Your task to perform on an android device: Add apple airpods to the cart on bestbuy.com Image 0: 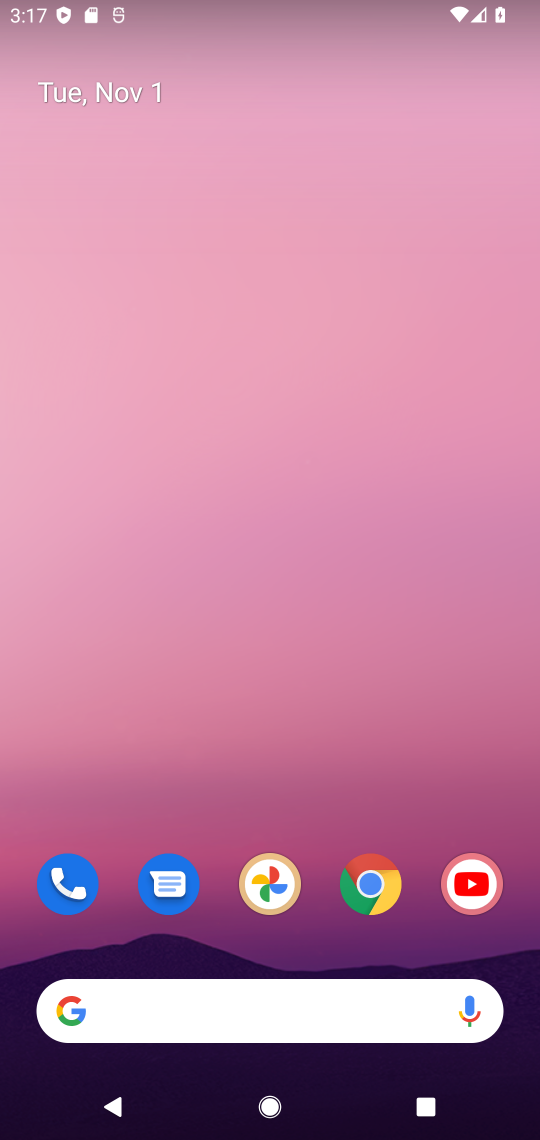
Step 0: click (364, 887)
Your task to perform on an android device: Add apple airpods to the cart on bestbuy.com Image 1: 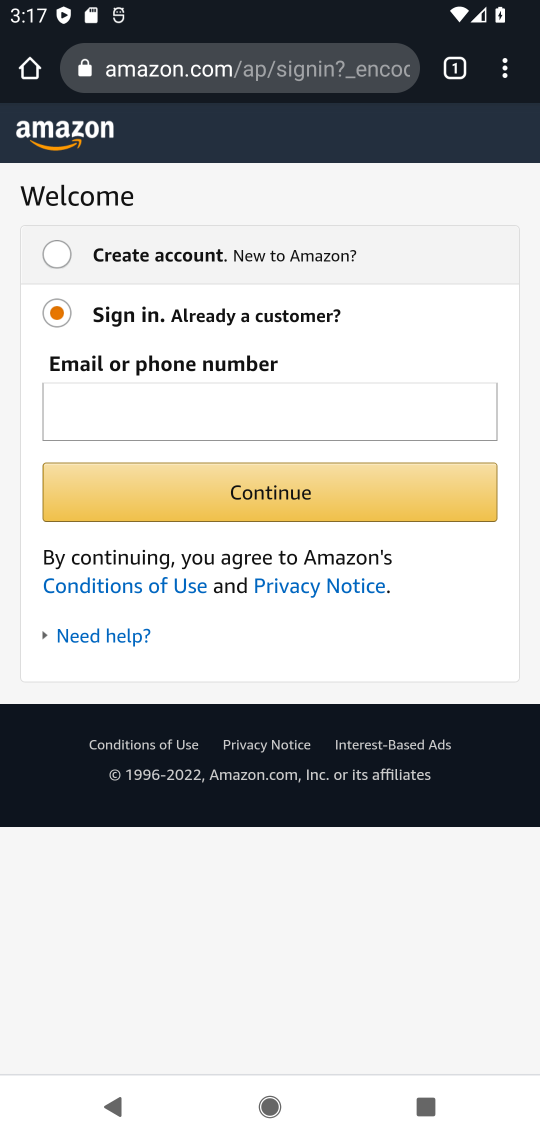
Step 1: click (291, 67)
Your task to perform on an android device: Add apple airpods to the cart on bestbuy.com Image 2: 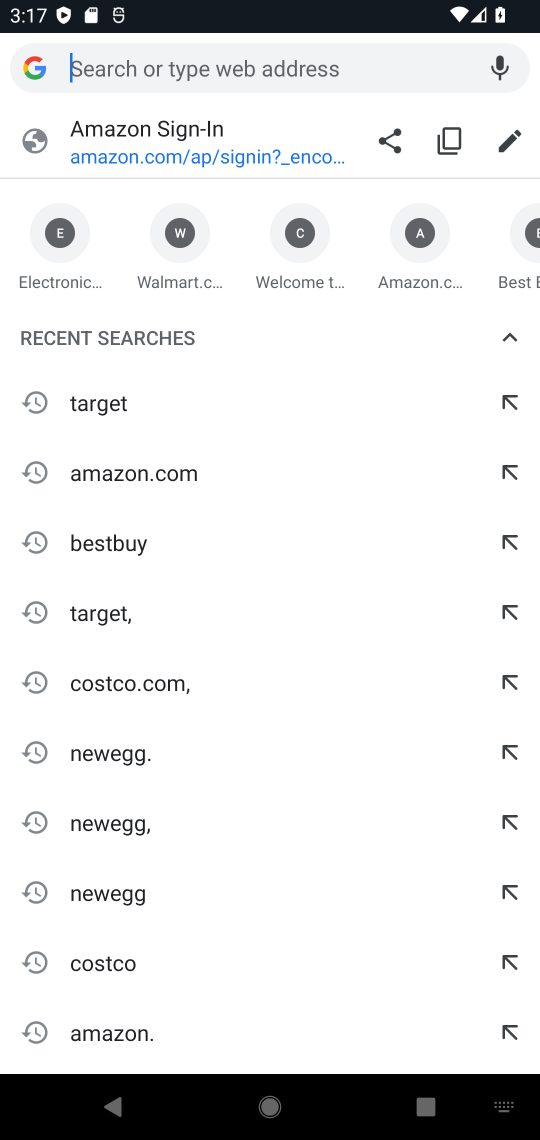
Step 2: type "bestbuy.com"
Your task to perform on an android device: Add apple airpods to the cart on bestbuy.com Image 3: 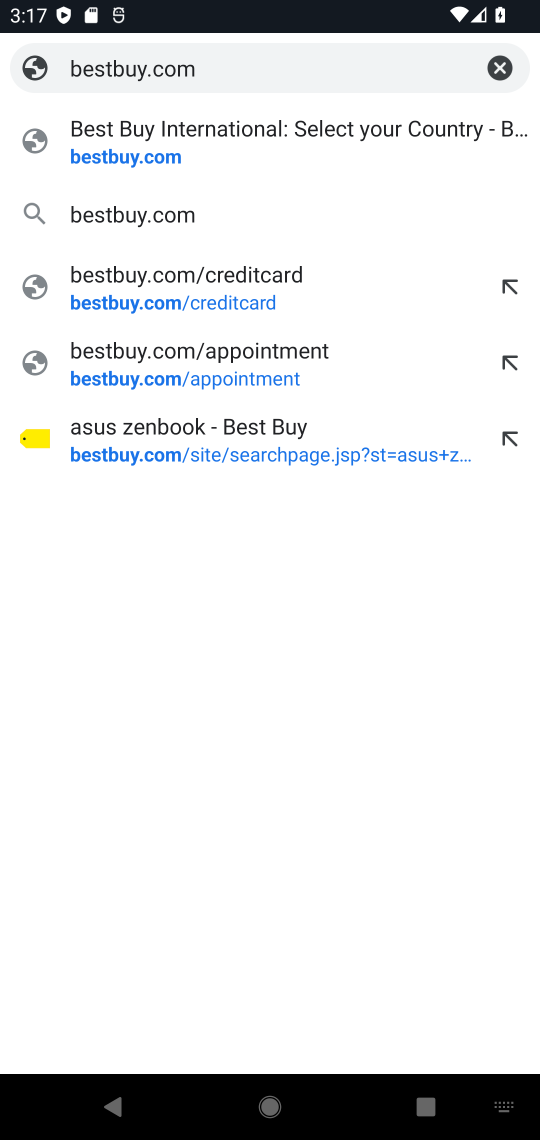
Step 3: click (152, 214)
Your task to perform on an android device: Add apple airpods to the cart on bestbuy.com Image 4: 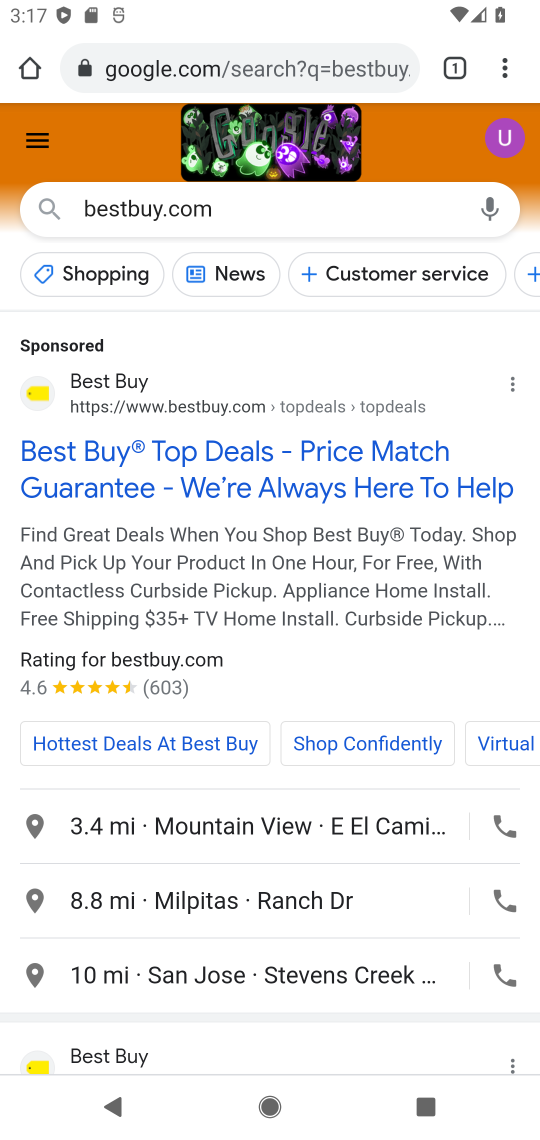
Step 4: drag from (270, 774) to (306, 310)
Your task to perform on an android device: Add apple airpods to the cart on bestbuy.com Image 5: 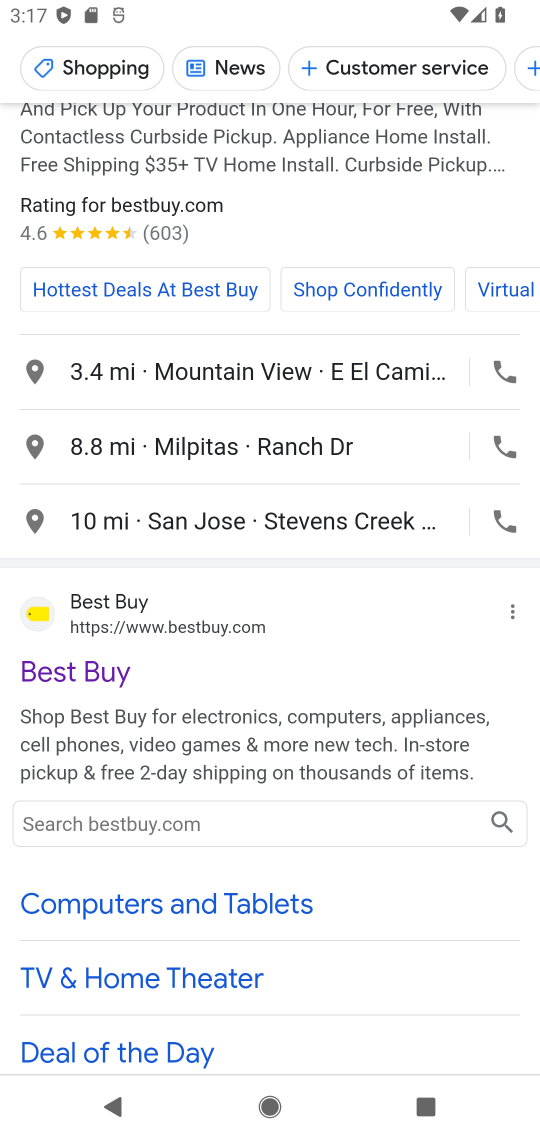
Step 5: click (98, 600)
Your task to perform on an android device: Add apple airpods to the cart on bestbuy.com Image 6: 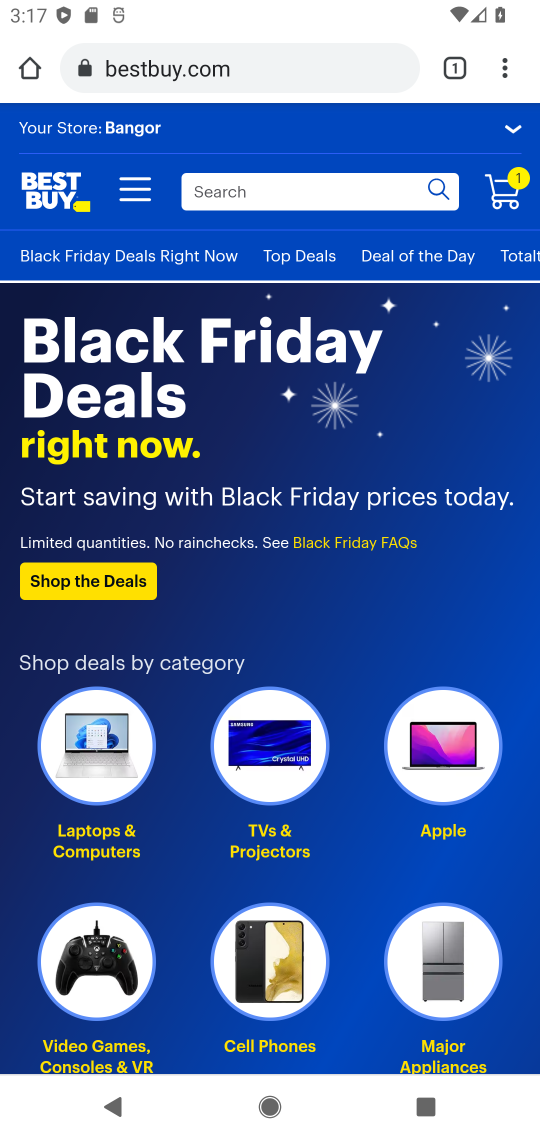
Step 6: click (263, 193)
Your task to perform on an android device: Add apple airpods to the cart on bestbuy.com Image 7: 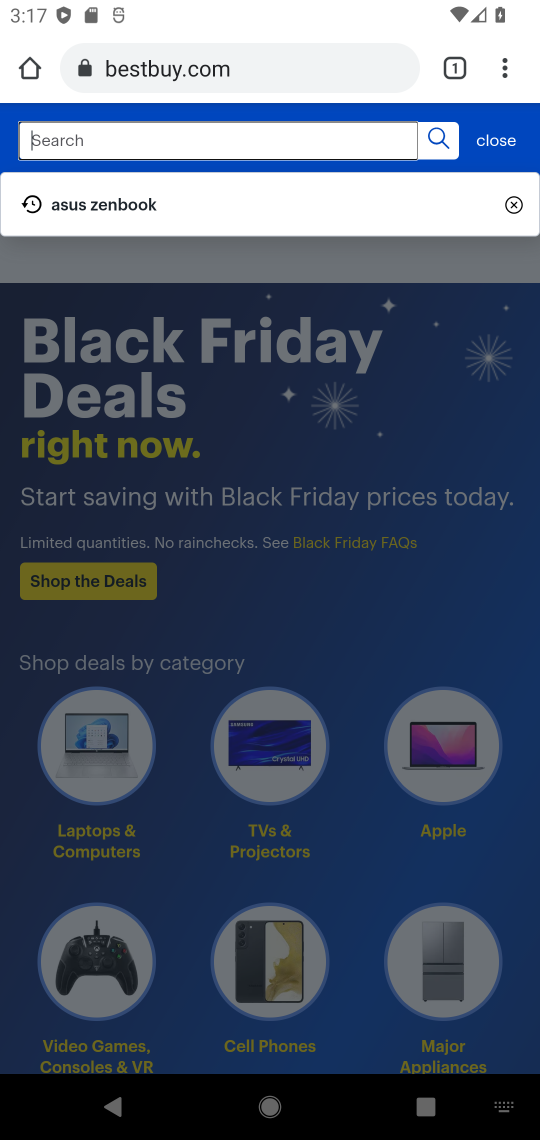
Step 7: type "apple airpods "
Your task to perform on an android device: Add apple airpods to the cart on bestbuy.com Image 8: 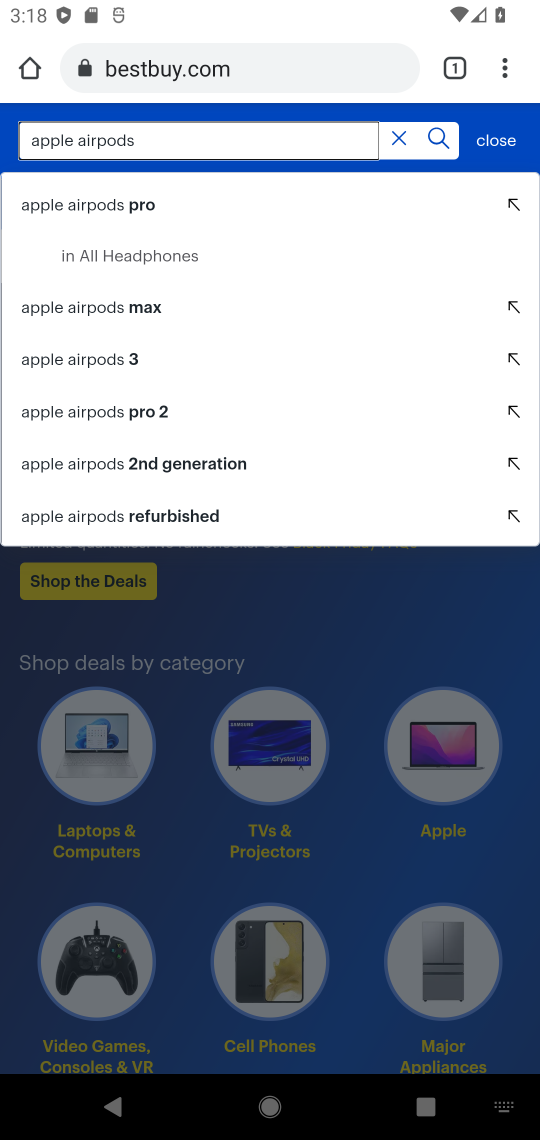
Step 8: click (264, 134)
Your task to perform on an android device: Add apple airpods to the cart on bestbuy.com Image 9: 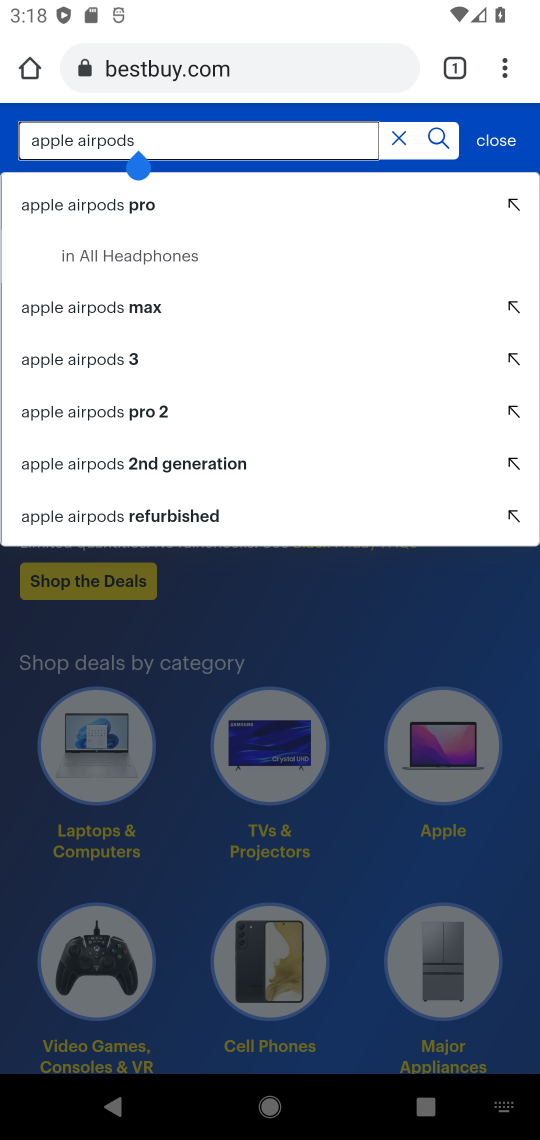
Step 9: click (97, 207)
Your task to perform on an android device: Add apple airpods to the cart on bestbuy.com Image 10: 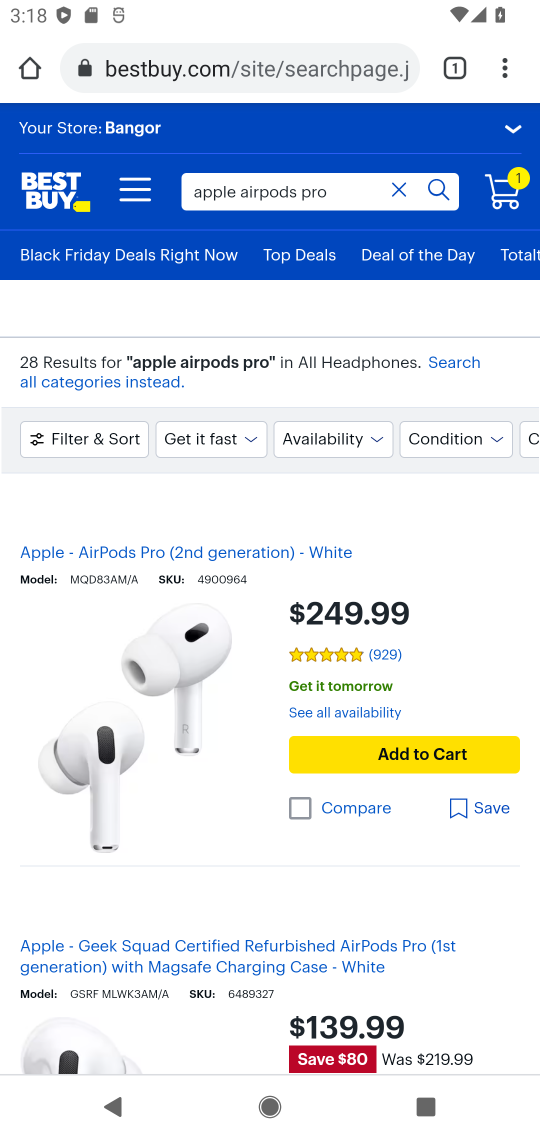
Step 10: click (123, 622)
Your task to perform on an android device: Add apple airpods to the cart on bestbuy.com Image 11: 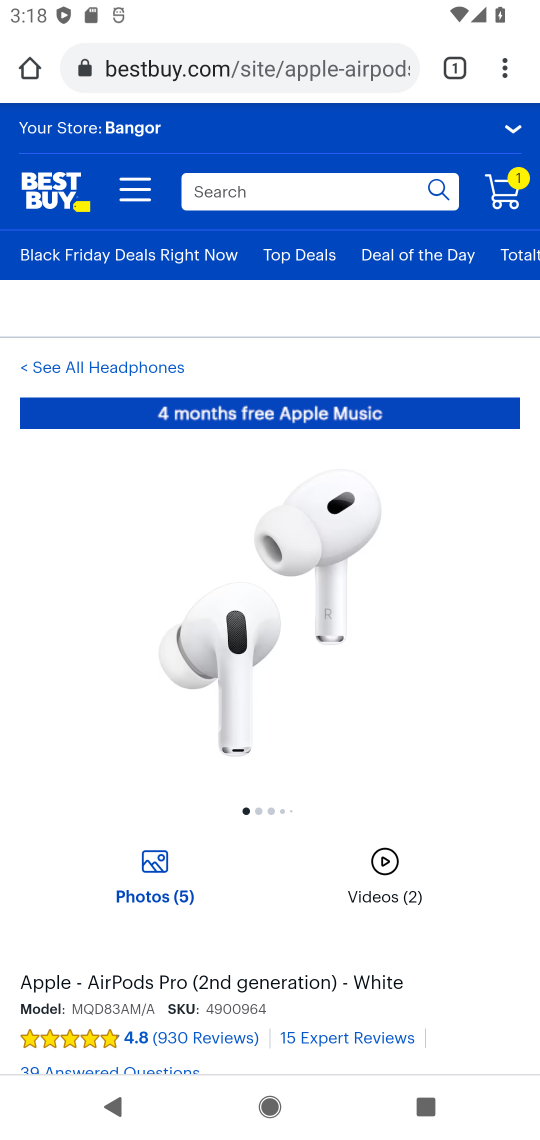
Step 11: drag from (406, 802) to (417, 414)
Your task to perform on an android device: Add apple airpods to the cart on bestbuy.com Image 12: 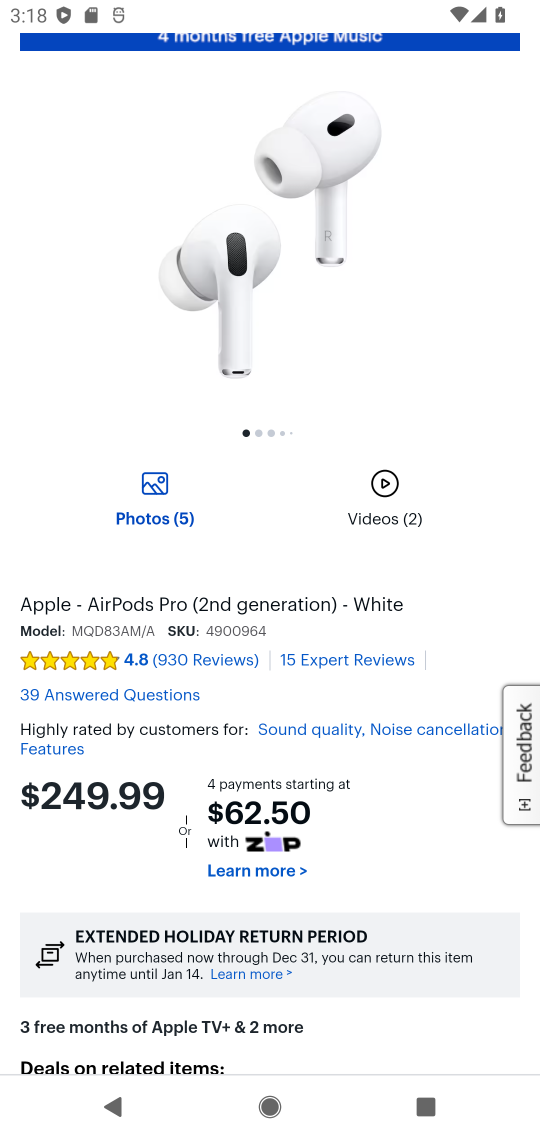
Step 12: drag from (420, 776) to (440, 460)
Your task to perform on an android device: Add apple airpods to the cart on bestbuy.com Image 13: 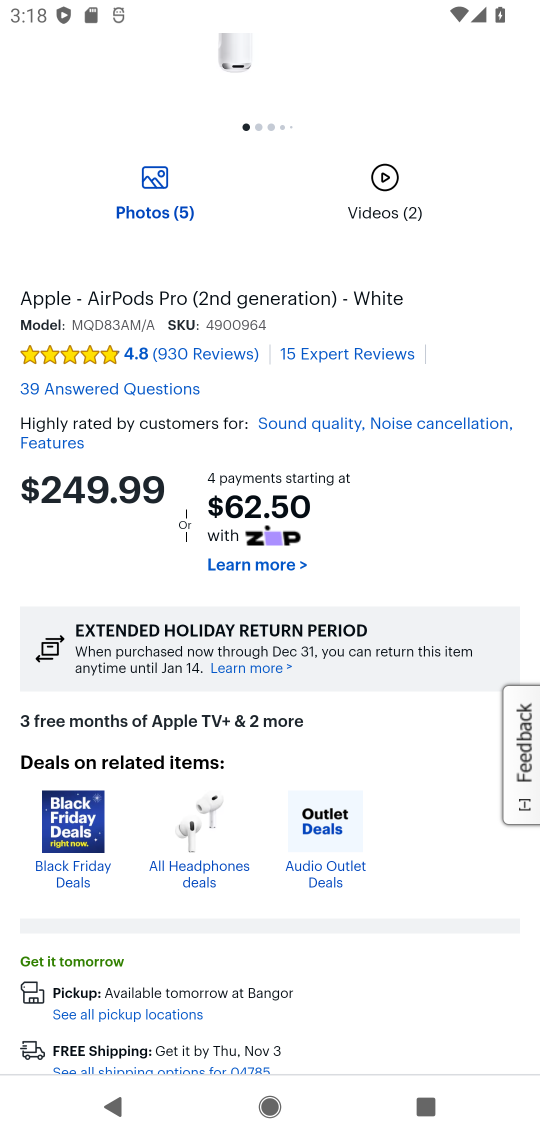
Step 13: drag from (411, 963) to (391, 479)
Your task to perform on an android device: Add apple airpods to the cart on bestbuy.com Image 14: 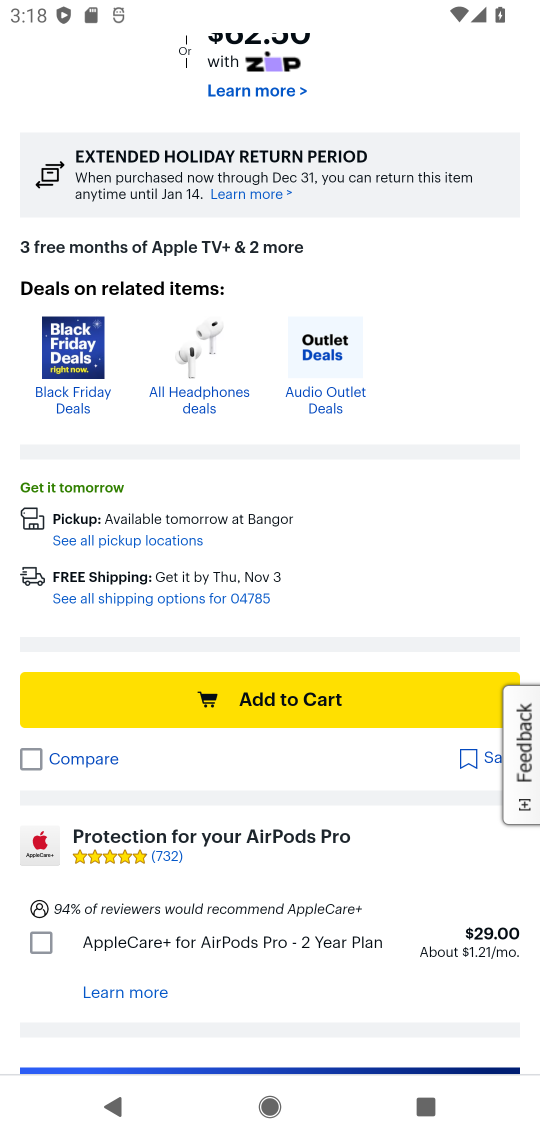
Step 14: click (339, 695)
Your task to perform on an android device: Add apple airpods to the cart on bestbuy.com Image 15: 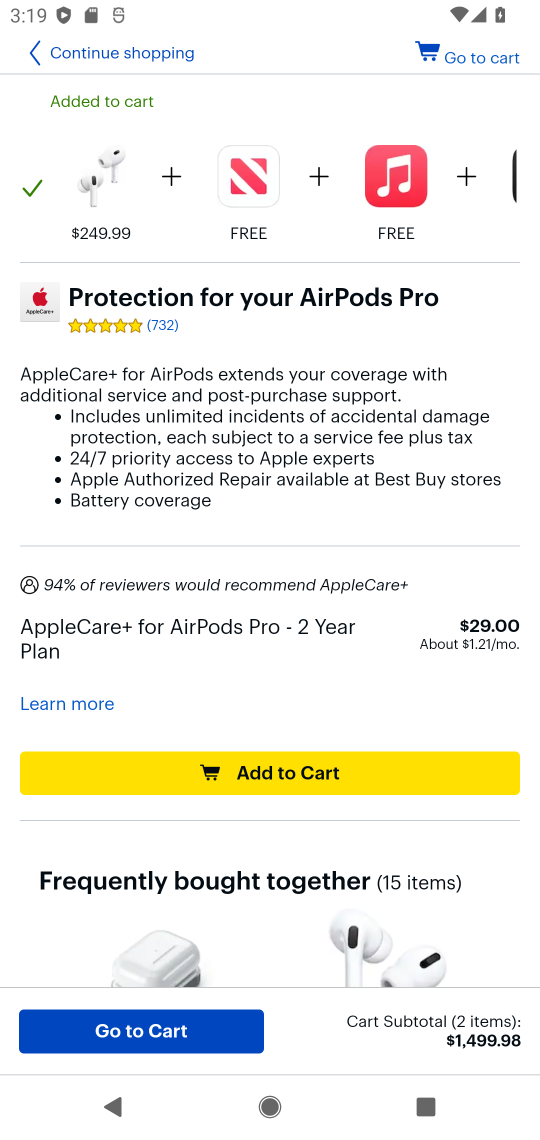
Step 15: task complete